Your task to perform on an android device: Empty the shopping cart on walmart. Search for asus zenbook on walmart, select the first entry, and add it to the cart. Image 0: 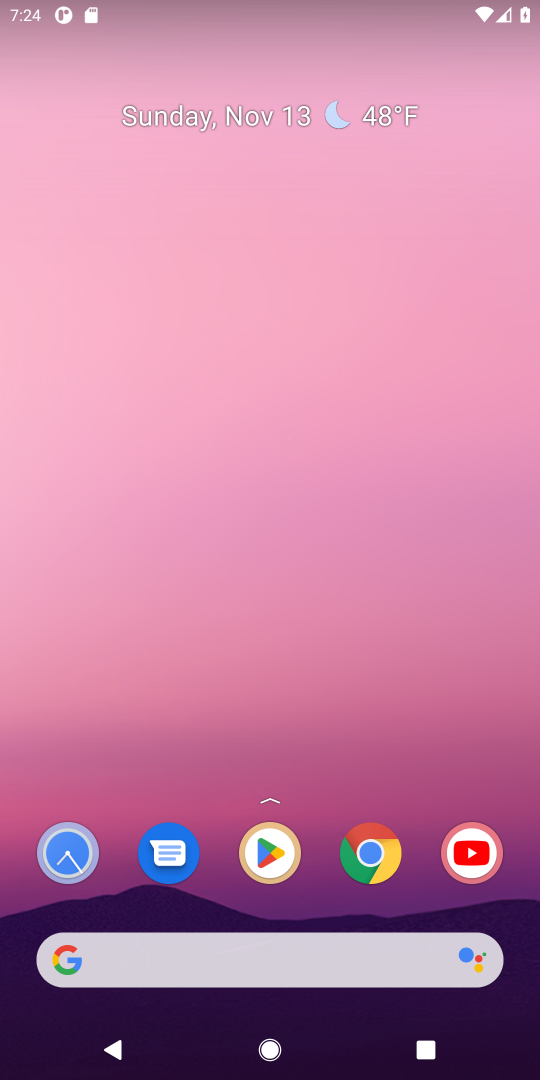
Step 0: press home button
Your task to perform on an android device: Empty the shopping cart on walmart. Search for asus zenbook on walmart, select the first entry, and add it to the cart. Image 1: 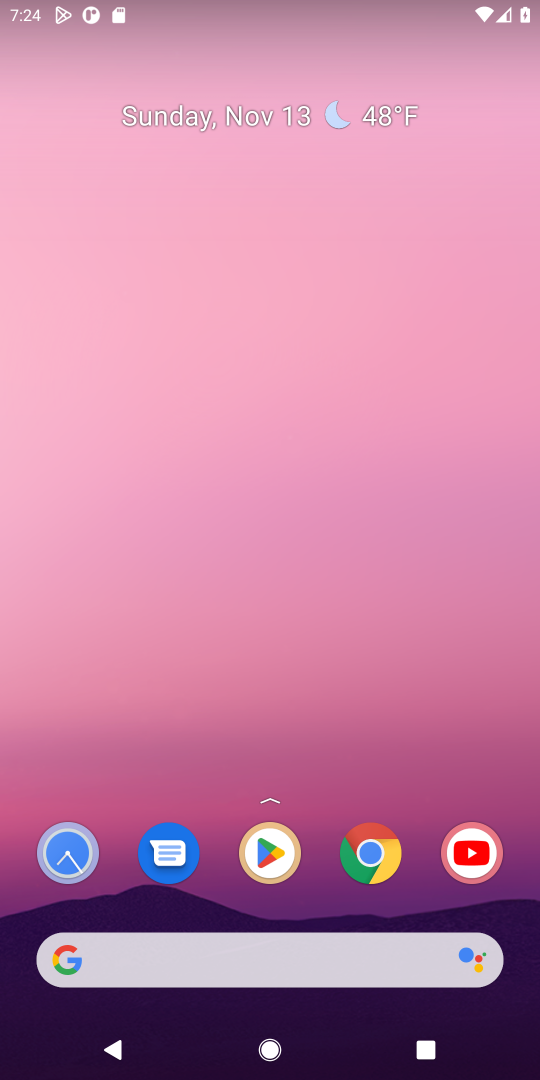
Step 1: click (105, 950)
Your task to perform on an android device: Empty the shopping cart on walmart. Search for asus zenbook on walmart, select the first entry, and add it to the cart. Image 2: 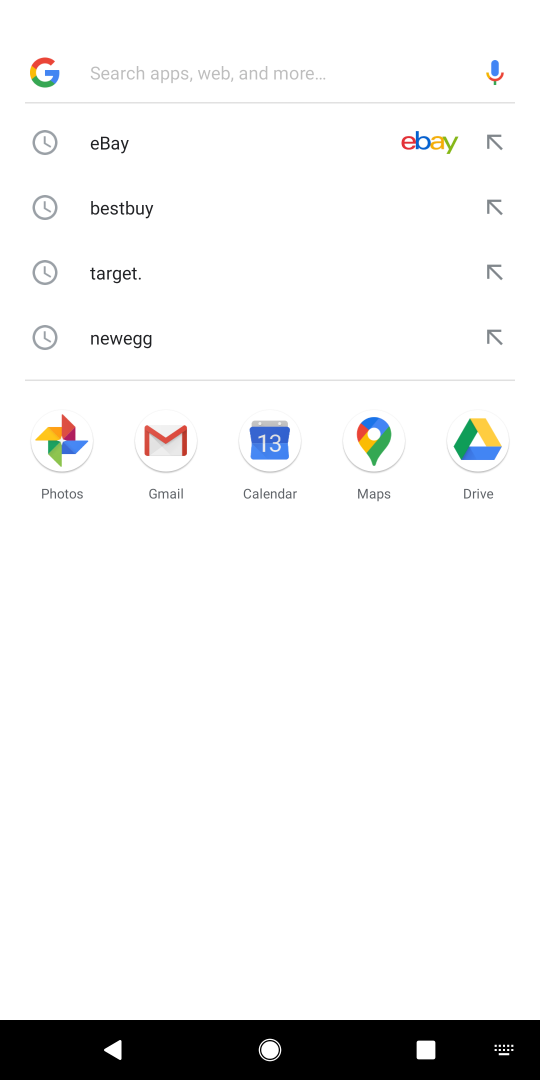
Step 2: press enter
Your task to perform on an android device: Empty the shopping cart on walmart. Search for asus zenbook on walmart, select the first entry, and add it to the cart. Image 3: 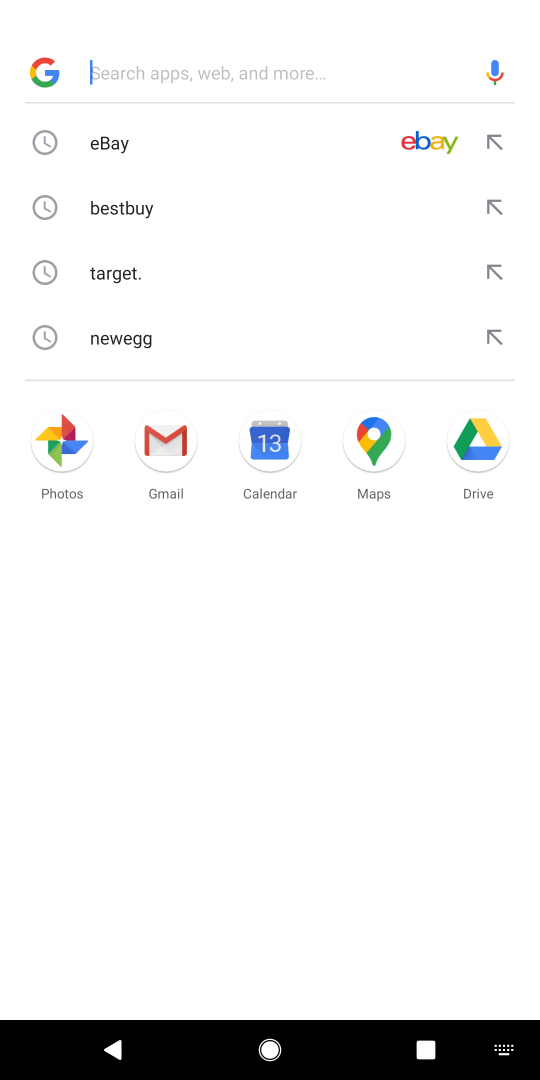
Step 3: type " walmart"
Your task to perform on an android device: Empty the shopping cart on walmart. Search for asus zenbook on walmart, select the first entry, and add it to the cart. Image 4: 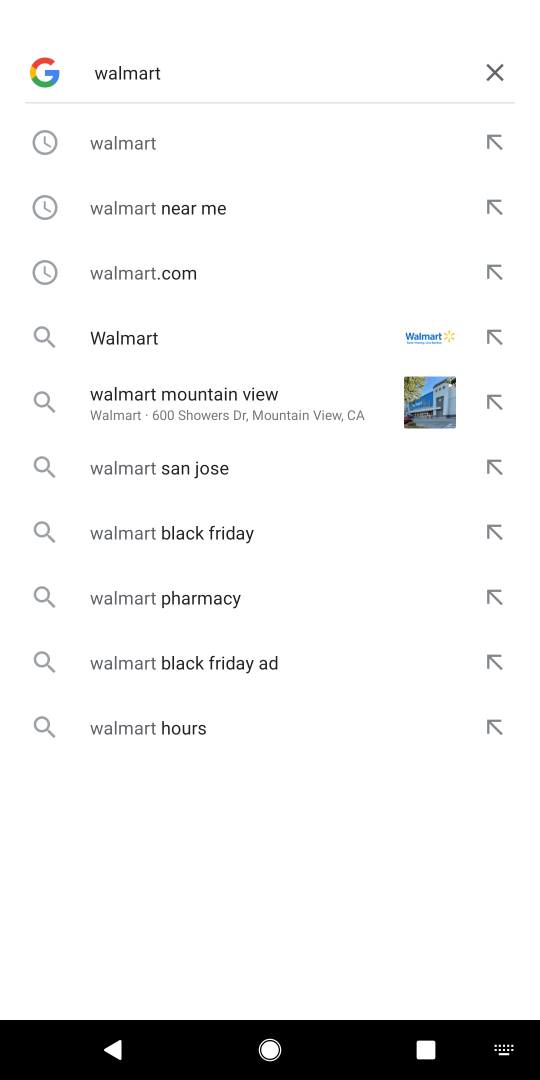
Step 4: press enter
Your task to perform on an android device: Empty the shopping cart on walmart. Search for asus zenbook on walmart, select the first entry, and add it to the cart. Image 5: 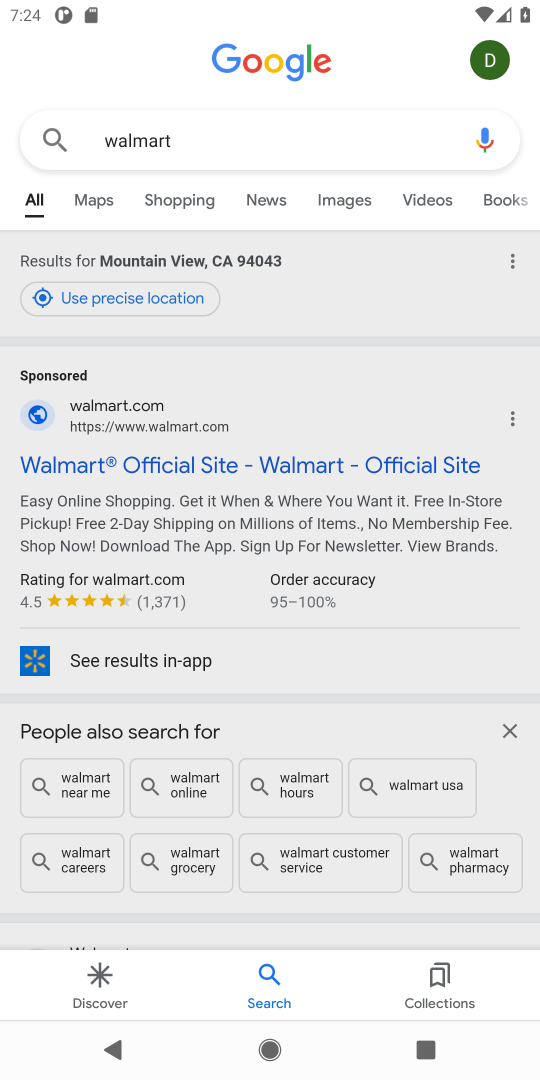
Step 5: click (115, 466)
Your task to perform on an android device: Empty the shopping cart on walmart. Search for asus zenbook on walmart, select the first entry, and add it to the cart. Image 6: 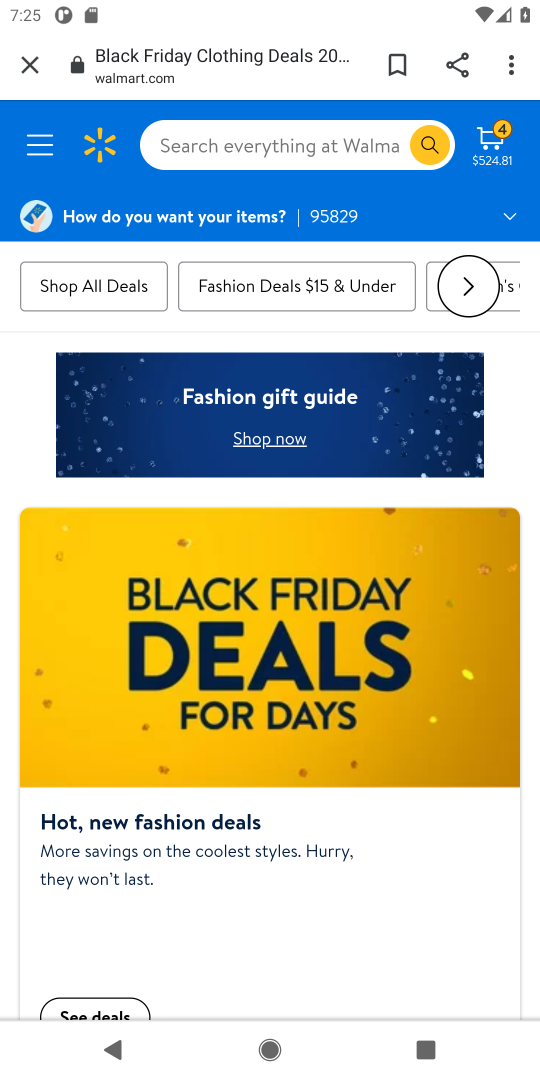
Step 6: click (496, 135)
Your task to perform on an android device: Empty the shopping cart on walmart. Search for asus zenbook on walmart, select the first entry, and add it to the cart. Image 7: 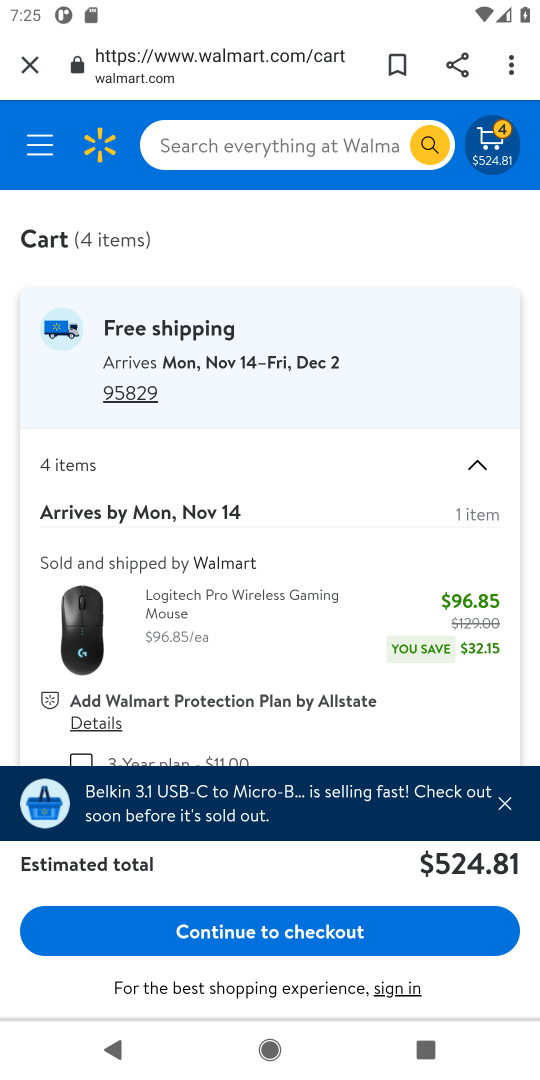
Step 7: drag from (328, 647) to (326, 330)
Your task to perform on an android device: Empty the shopping cart on walmart. Search for asus zenbook on walmart, select the first entry, and add it to the cart. Image 8: 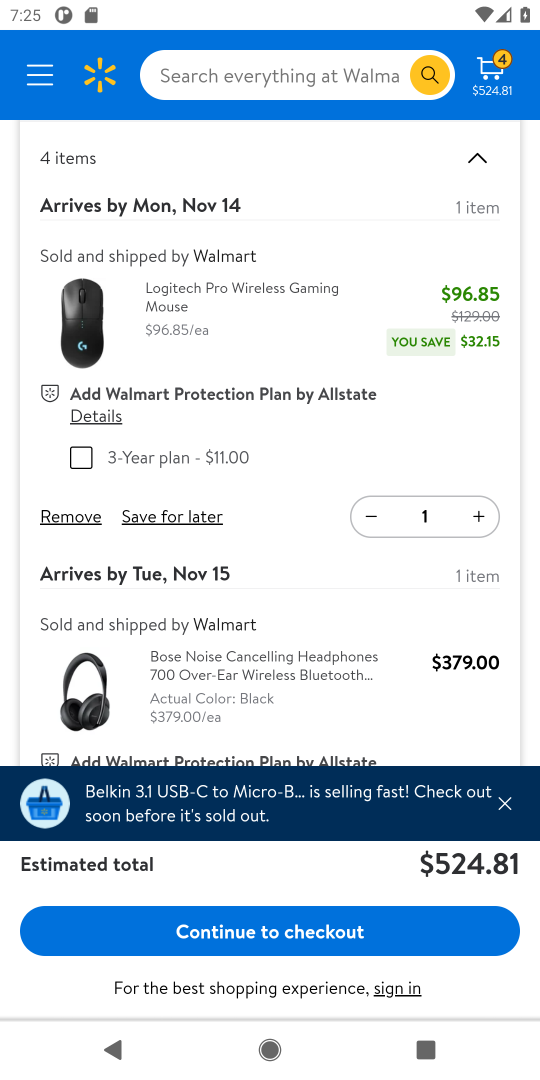
Step 8: click (66, 518)
Your task to perform on an android device: Empty the shopping cart on walmart. Search for asus zenbook on walmart, select the first entry, and add it to the cart. Image 9: 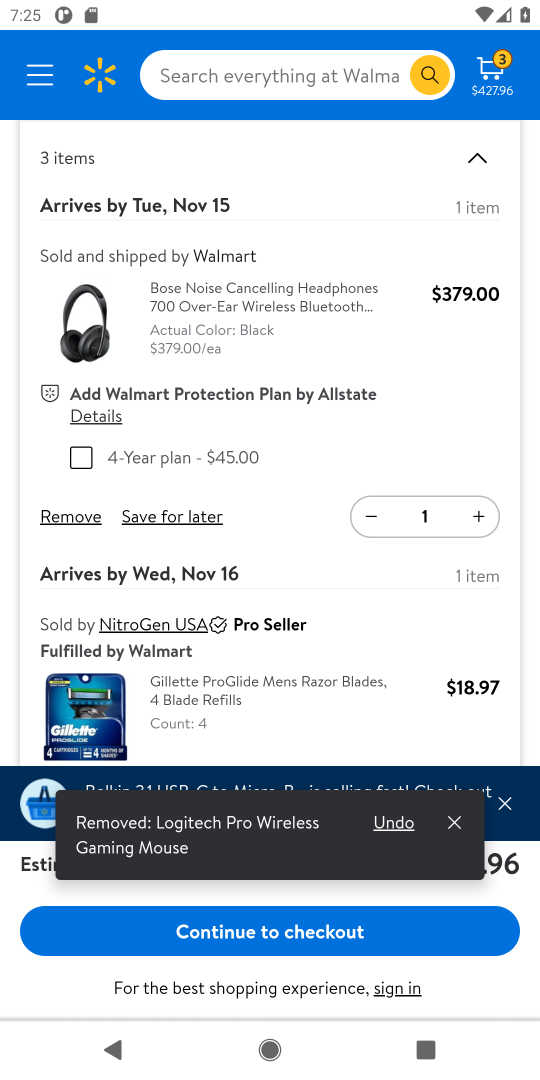
Step 9: click (66, 518)
Your task to perform on an android device: Empty the shopping cart on walmart. Search for asus zenbook on walmart, select the first entry, and add it to the cart. Image 10: 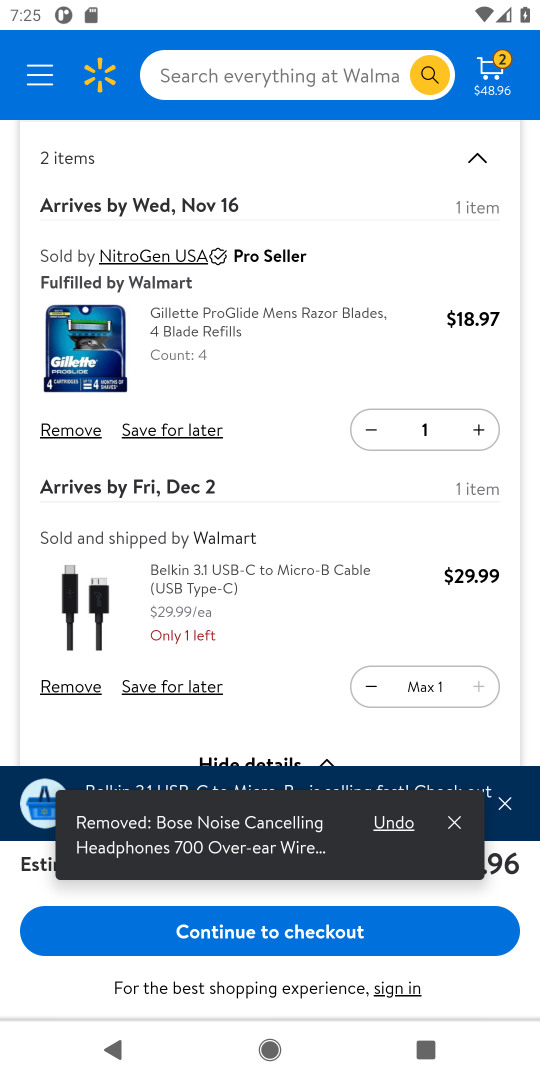
Step 10: click (73, 423)
Your task to perform on an android device: Empty the shopping cart on walmart. Search for asus zenbook on walmart, select the first entry, and add it to the cart. Image 11: 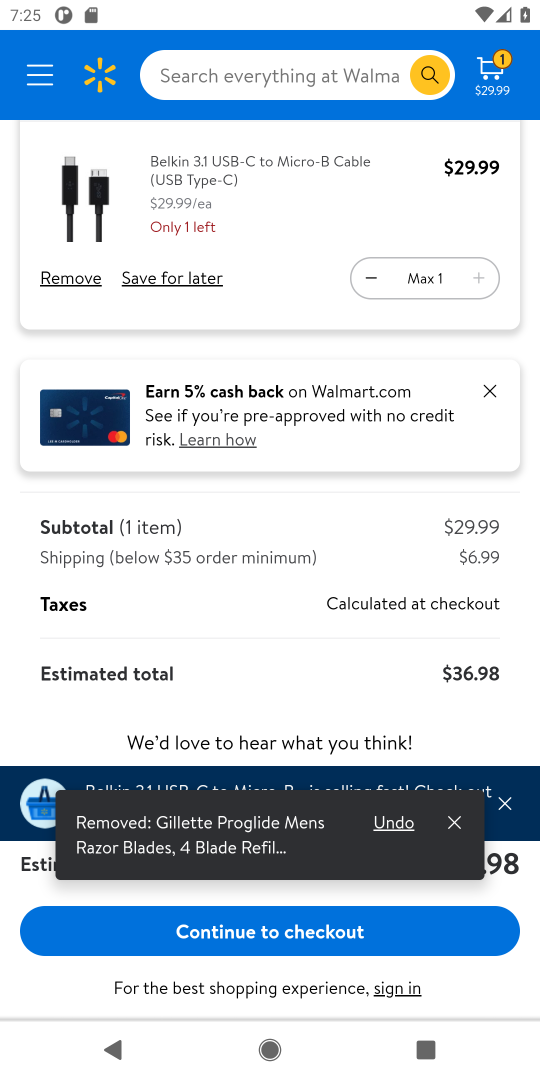
Step 11: click (67, 277)
Your task to perform on an android device: Empty the shopping cart on walmart. Search for asus zenbook on walmart, select the first entry, and add it to the cart. Image 12: 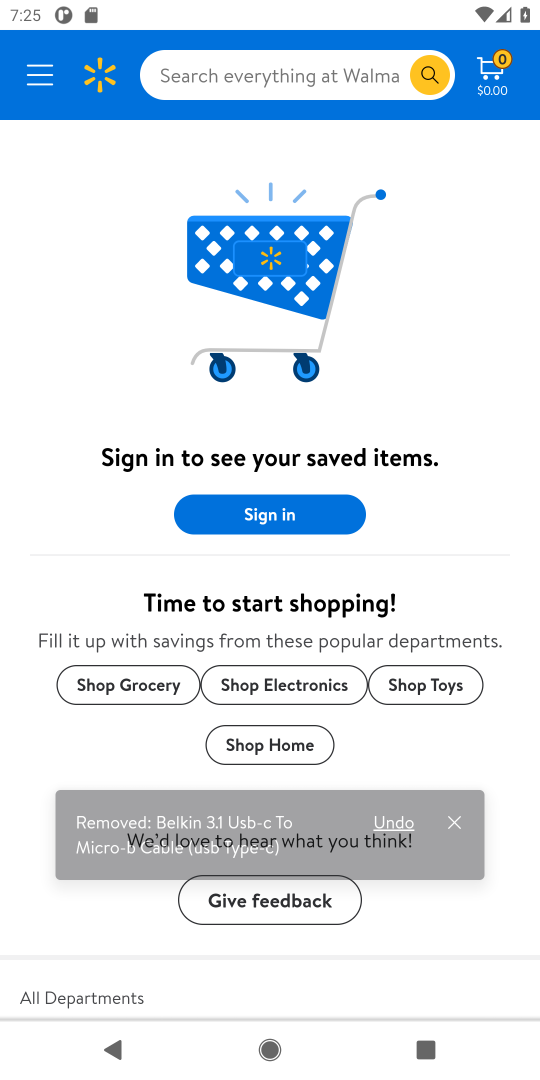
Step 12: click (195, 69)
Your task to perform on an android device: Empty the shopping cart on walmart. Search for asus zenbook on walmart, select the first entry, and add it to the cart. Image 13: 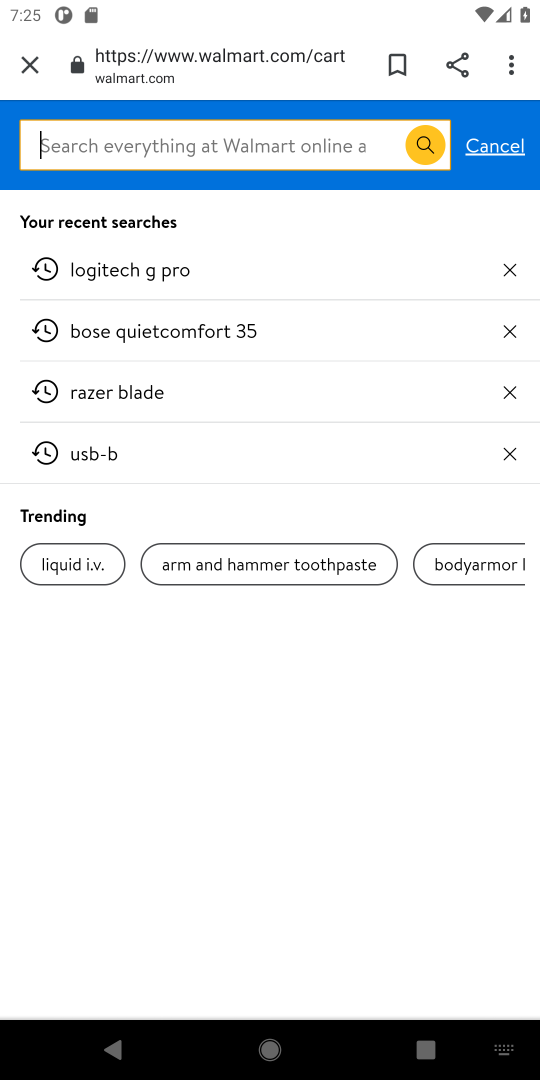
Step 13: type "asus zenbook"
Your task to perform on an android device: Empty the shopping cart on walmart. Search for asus zenbook on walmart, select the first entry, and add it to the cart. Image 14: 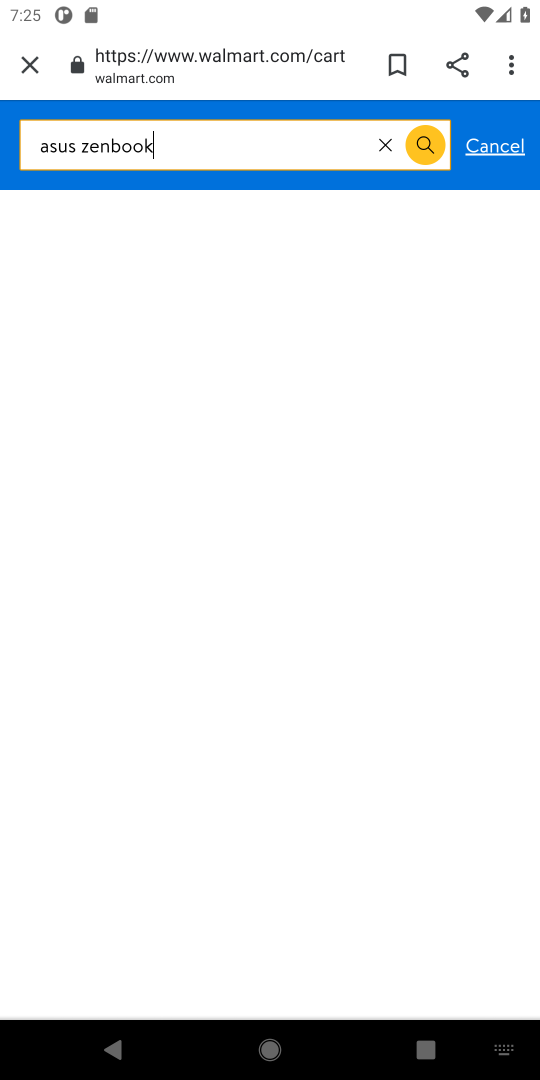
Step 14: press enter
Your task to perform on an android device: Empty the shopping cart on walmart. Search for asus zenbook on walmart, select the first entry, and add it to the cart. Image 15: 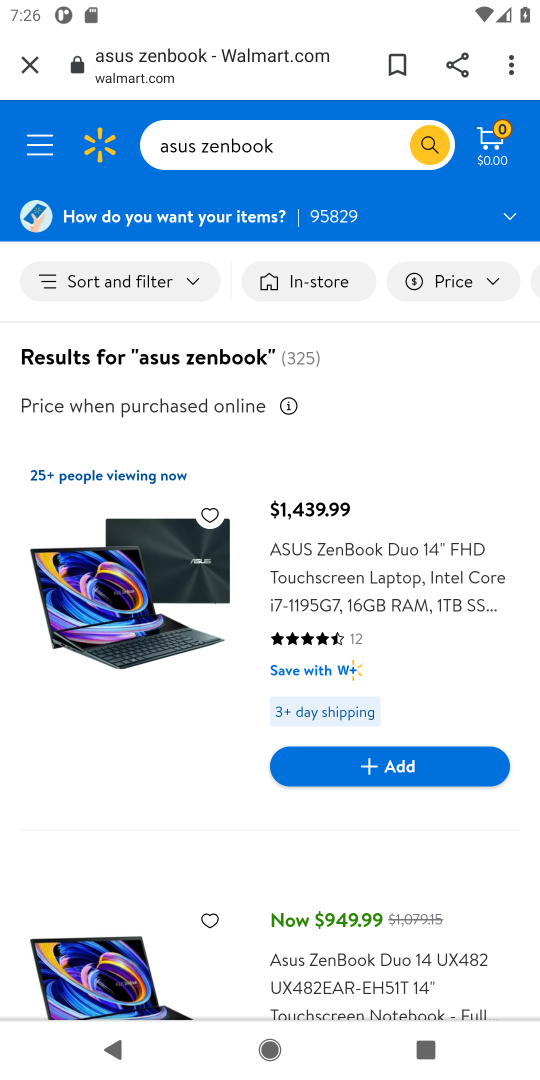
Step 15: click (380, 764)
Your task to perform on an android device: Empty the shopping cart on walmart. Search for asus zenbook on walmart, select the first entry, and add it to the cart. Image 16: 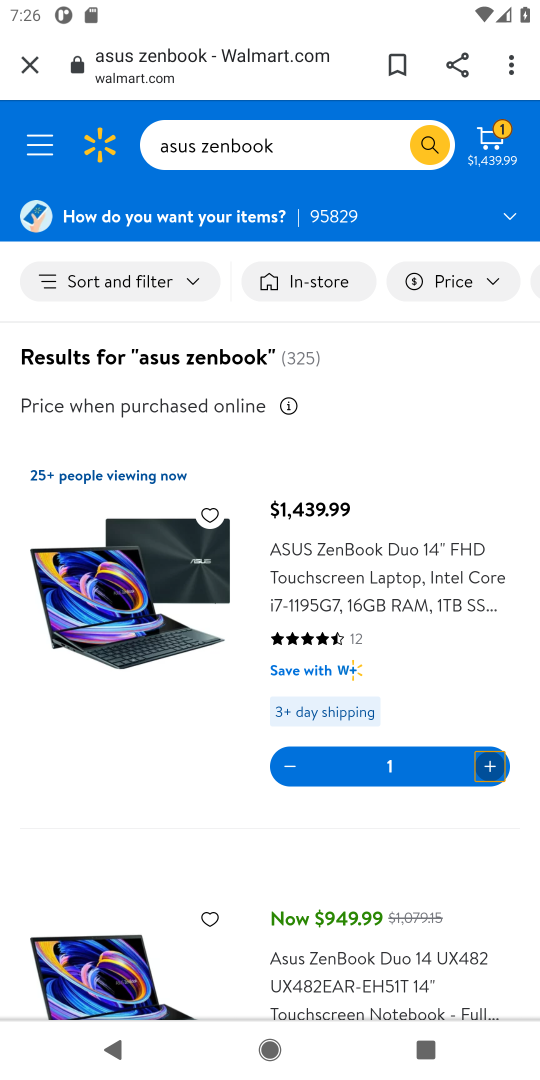
Step 16: task complete